Your task to perform on an android device: change the clock display to digital Image 0: 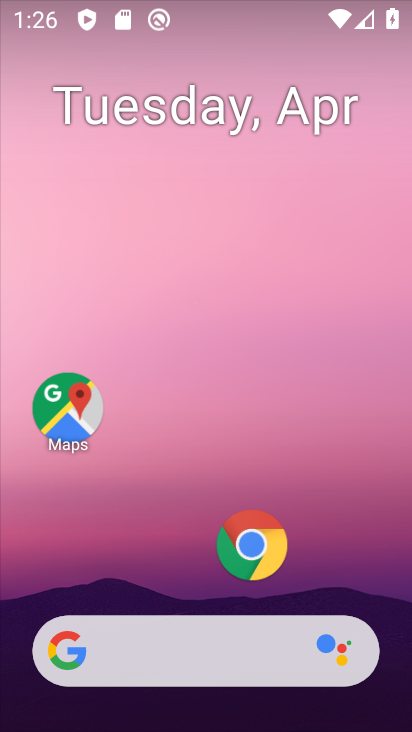
Step 0: drag from (200, 403) to (255, 139)
Your task to perform on an android device: change the clock display to digital Image 1: 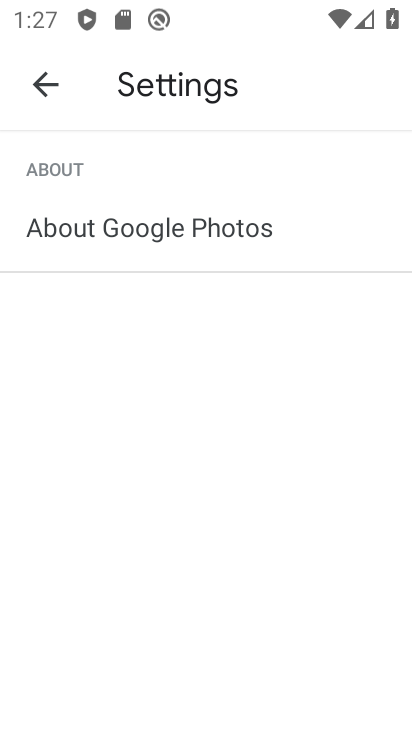
Step 1: press home button
Your task to perform on an android device: change the clock display to digital Image 2: 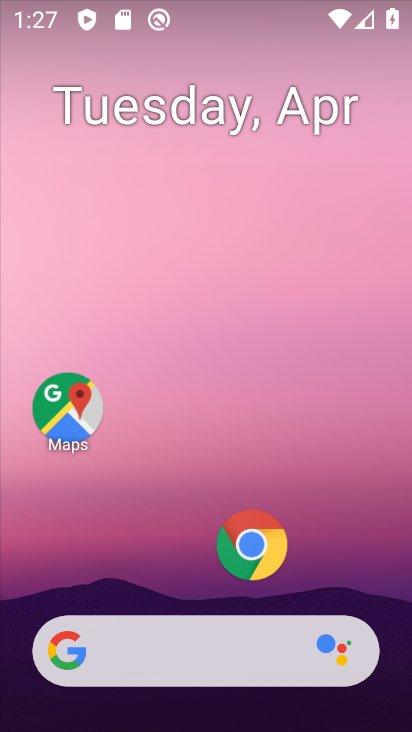
Step 2: drag from (166, 541) to (288, 154)
Your task to perform on an android device: change the clock display to digital Image 3: 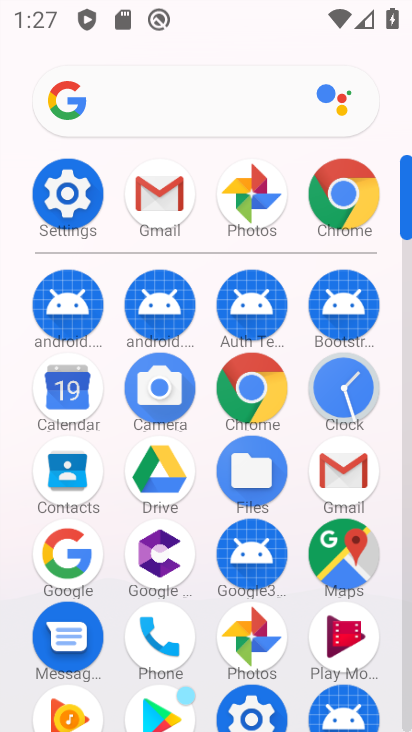
Step 3: click (337, 380)
Your task to perform on an android device: change the clock display to digital Image 4: 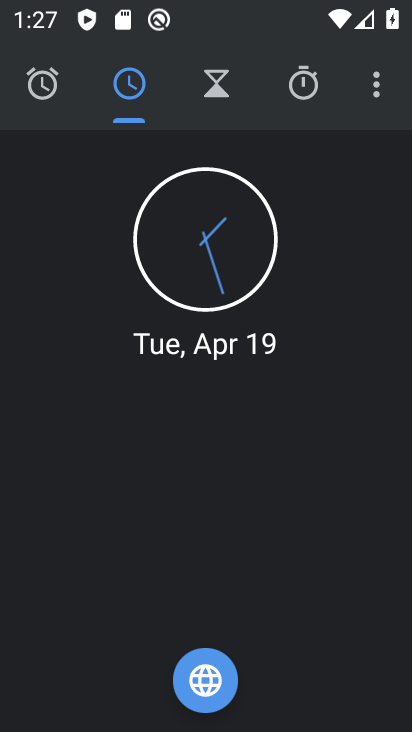
Step 4: click (388, 85)
Your task to perform on an android device: change the clock display to digital Image 5: 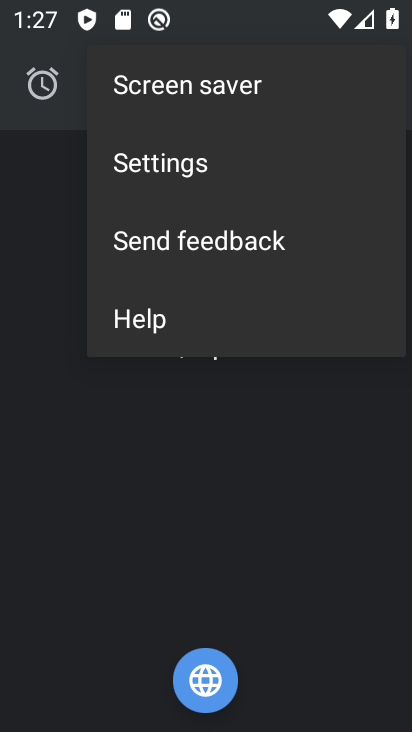
Step 5: click (215, 165)
Your task to perform on an android device: change the clock display to digital Image 6: 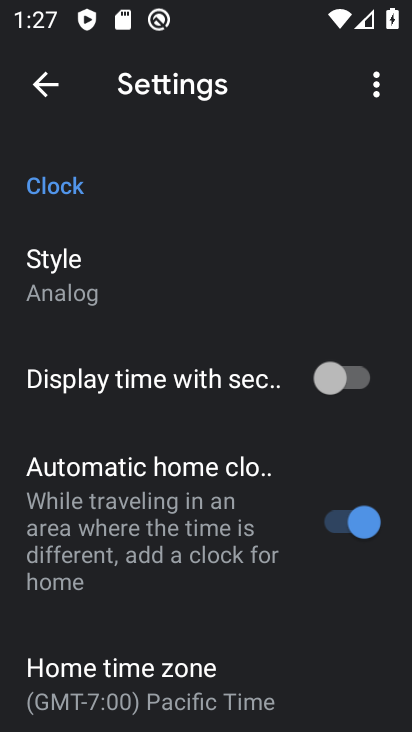
Step 6: click (98, 288)
Your task to perform on an android device: change the clock display to digital Image 7: 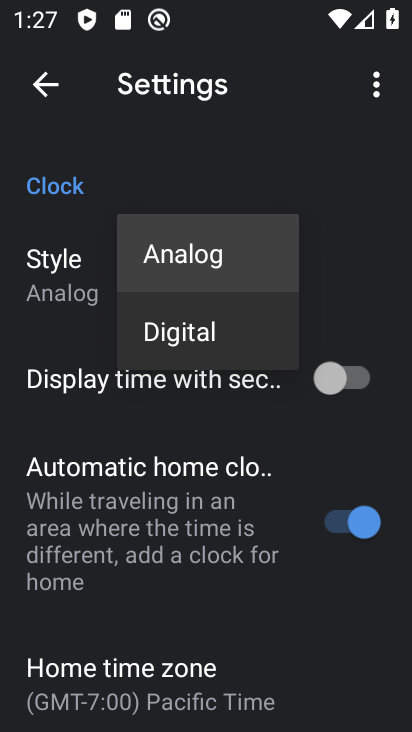
Step 7: click (154, 315)
Your task to perform on an android device: change the clock display to digital Image 8: 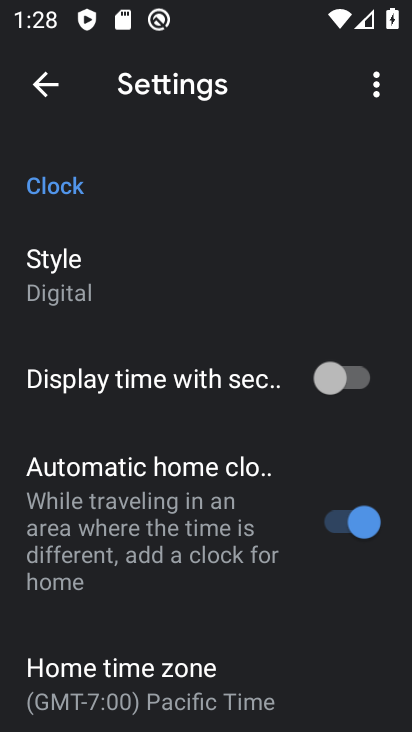
Step 8: task complete